Your task to perform on an android device: delete the emails in spam in the gmail app Image 0: 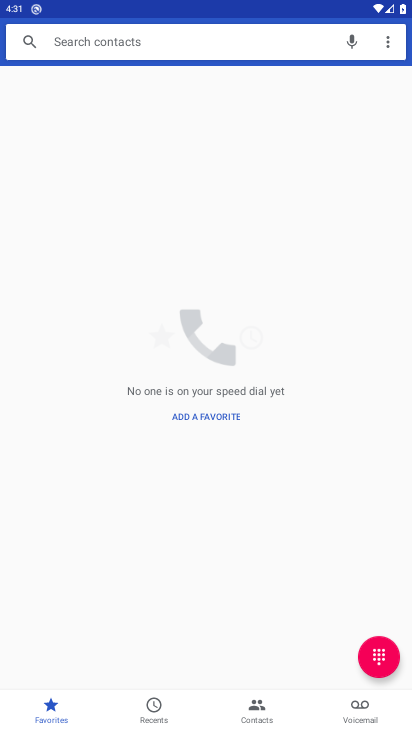
Step 0: press home button
Your task to perform on an android device: delete the emails in spam in the gmail app Image 1: 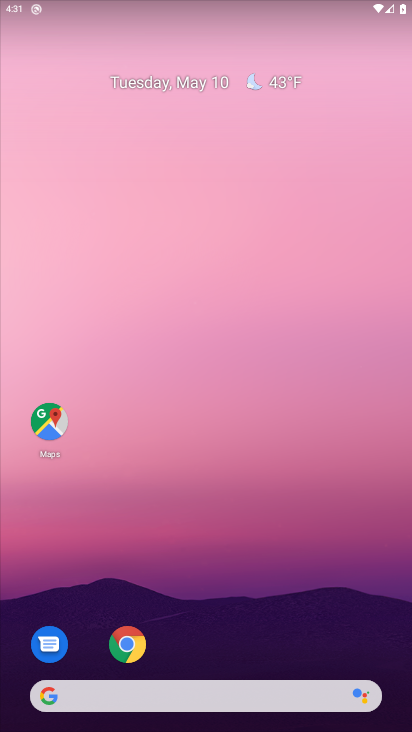
Step 1: drag from (170, 676) to (134, 302)
Your task to perform on an android device: delete the emails in spam in the gmail app Image 2: 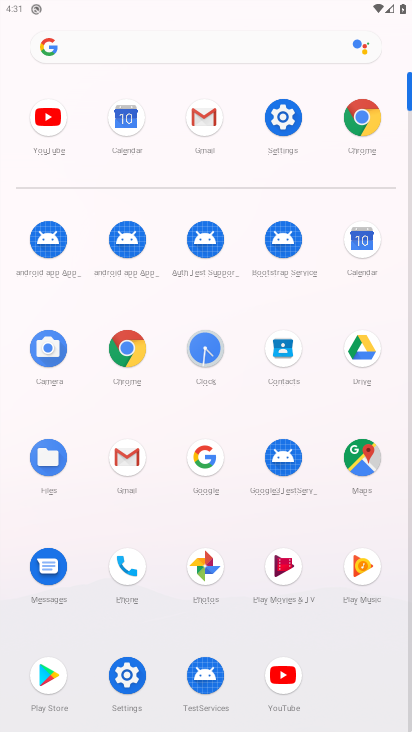
Step 2: click (195, 110)
Your task to perform on an android device: delete the emails in spam in the gmail app Image 3: 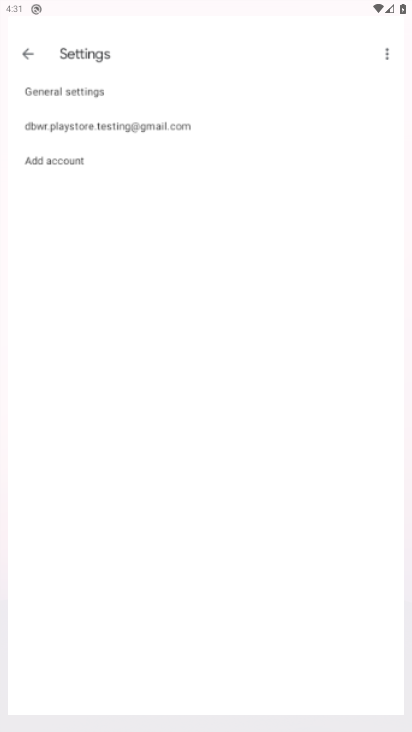
Step 3: click (23, 67)
Your task to perform on an android device: delete the emails in spam in the gmail app Image 4: 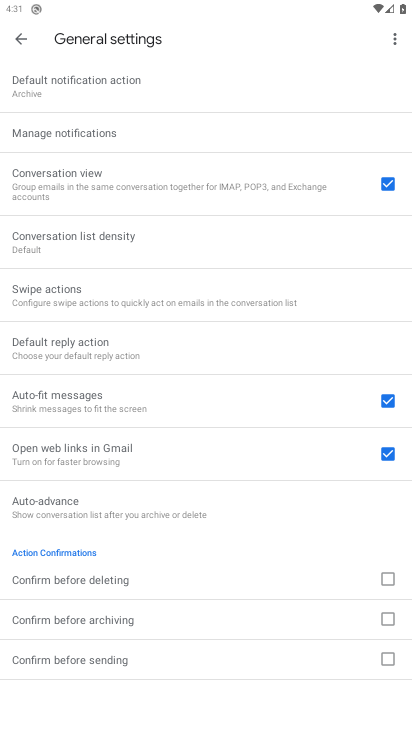
Step 4: click (14, 49)
Your task to perform on an android device: delete the emails in spam in the gmail app Image 5: 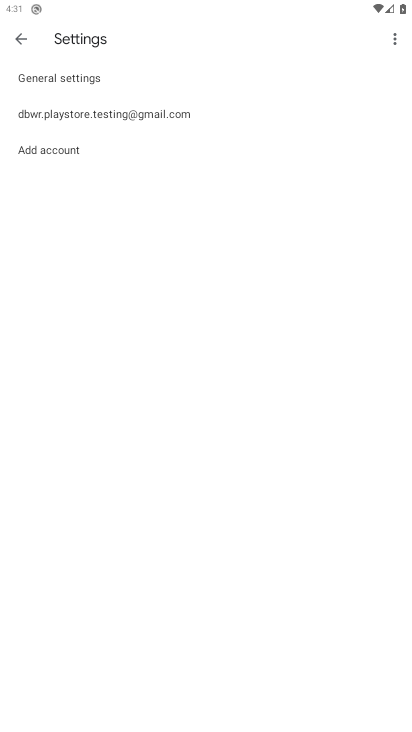
Step 5: click (14, 49)
Your task to perform on an android device: delete the emails in spam in the gmail app Image 6: 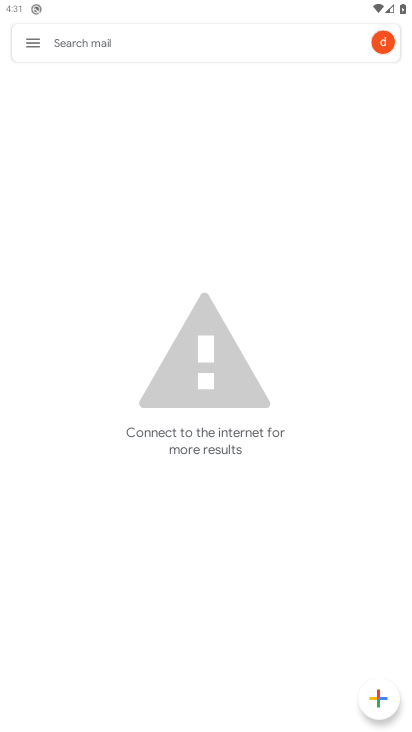
Step 6: click (28, 39)
Your task to perform on an android device: delete the emails in spam in the gmail app Image 7: 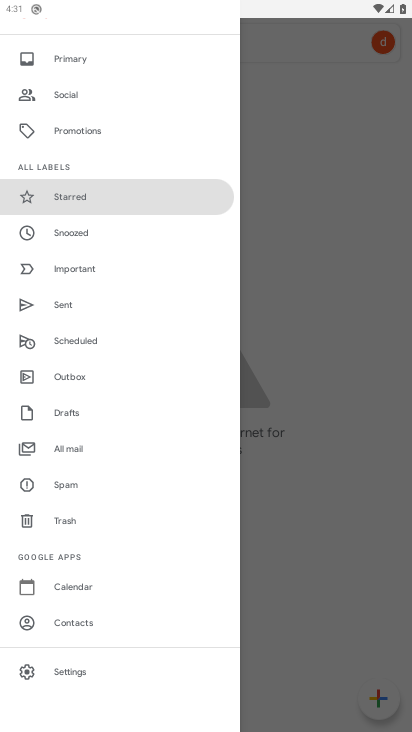
Step 7: click (71, 480)
Your task to perform on an android device: delete the emails in spam in the gmail app Image 8: 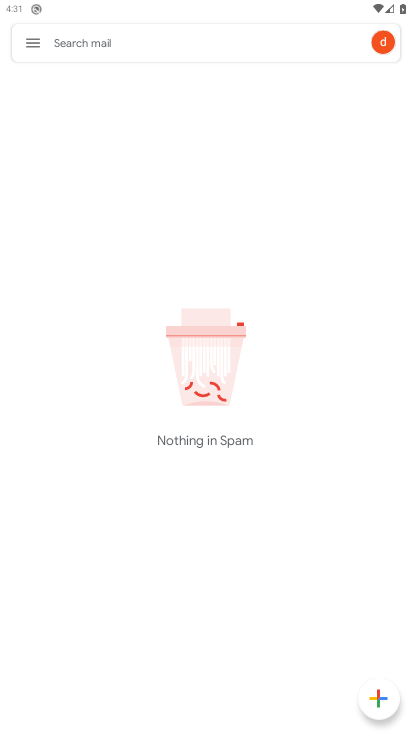
Step 8: task complete